Your task to perform on an android device: Go to settings Image 0: 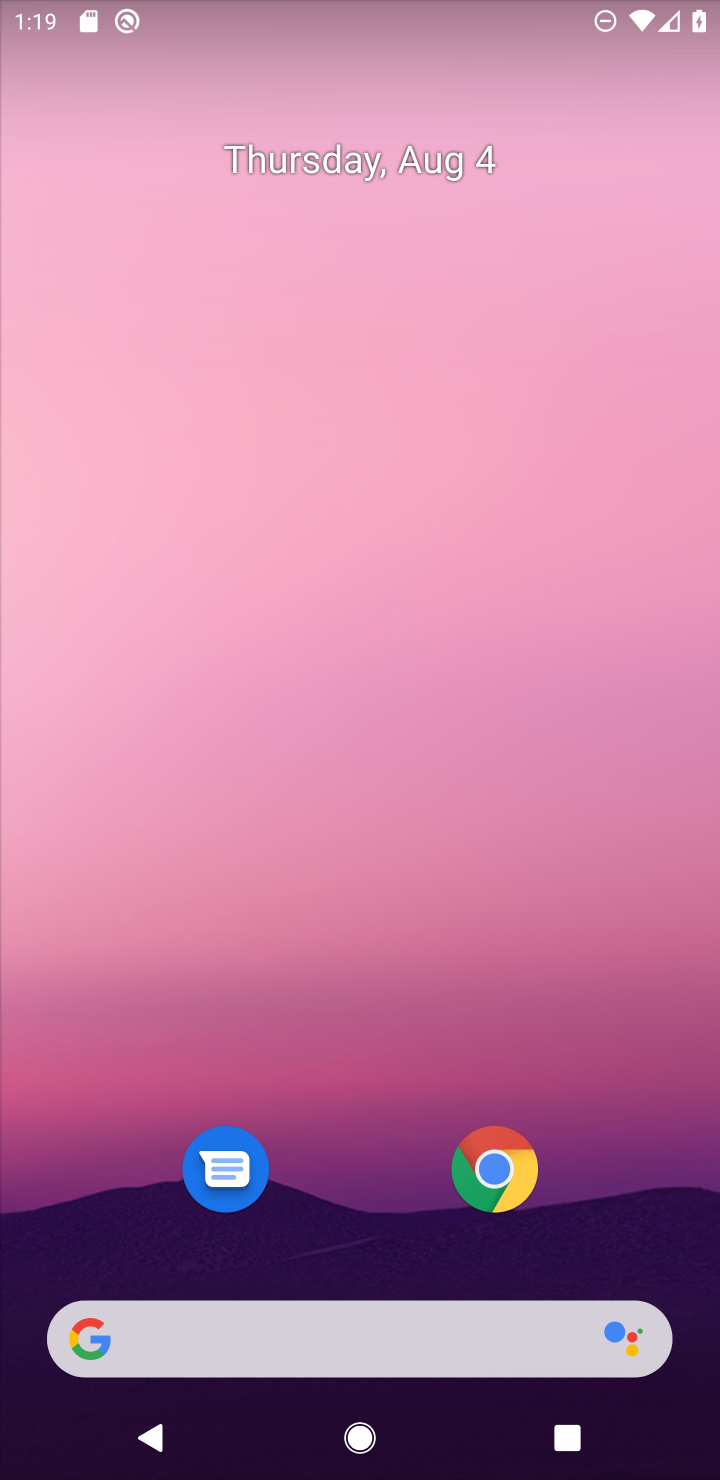
Step 0: drag from (353, 1078) to (336, 27)
Your task to perform on an android device: Go to settings Image 1: 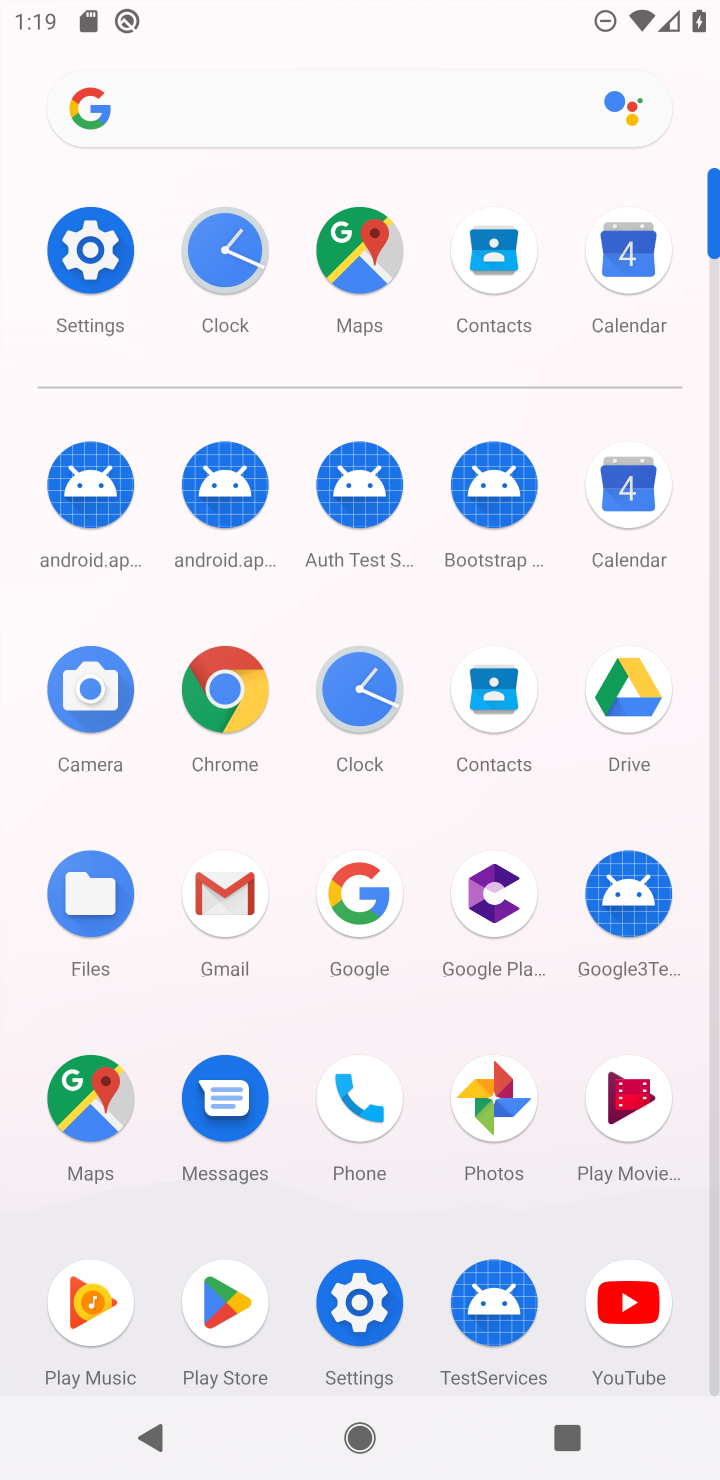
Step 1: click (80, 253)
Your task to perform on an android device: Go to settings Image 2: 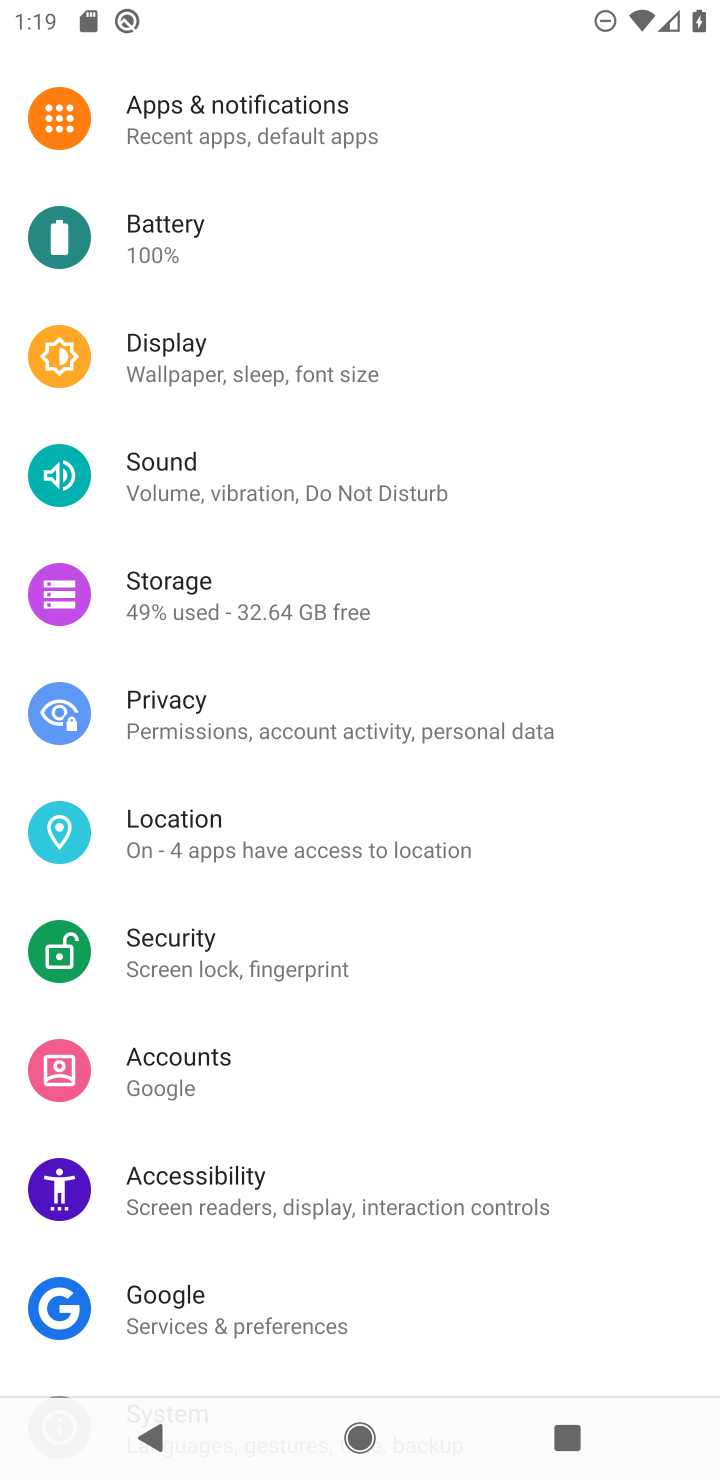
Step 2: task complete